Your task to perform on an android device: turn off airplane mode Image 0: 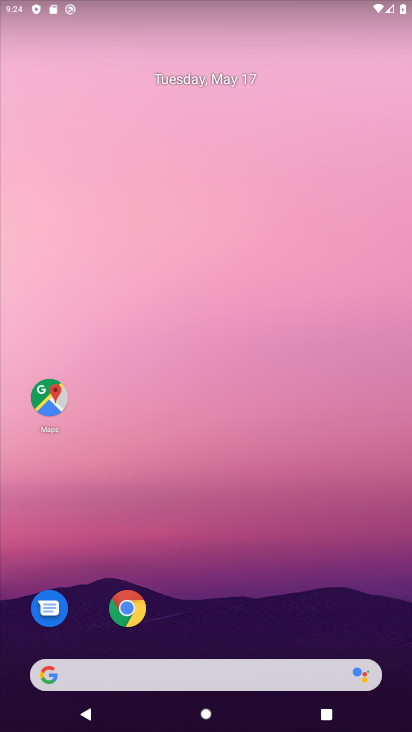
Step 0: drag from (285, 432) to (115, 22)
Your task to perform on an android device: turn off airplane mode Image 1: 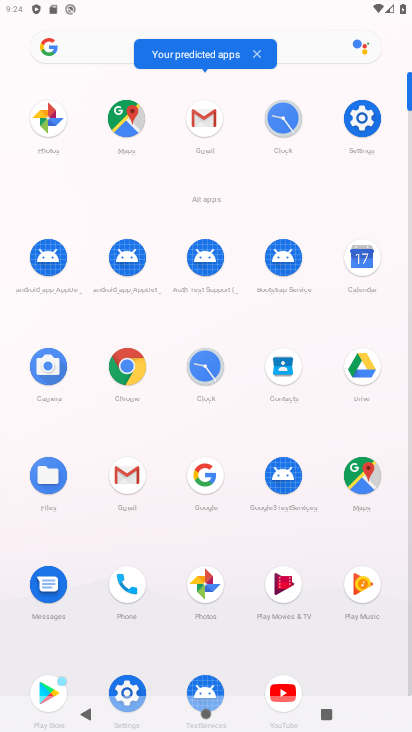
Step 1: click (369, 124)
Your task to perform on an android device: turn off airplane mode Image 2: 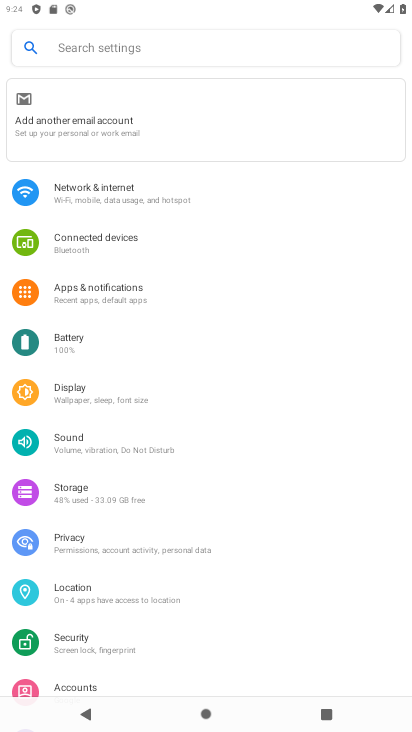
Step 2: click (83, 196)
Your task to perform on an android device: turn off airplane mode Image 3: 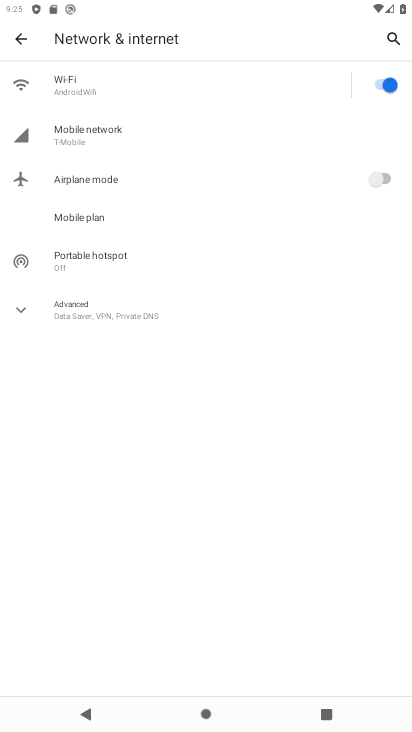
Step 3: click (32, 38)
Your task to perform on an android device: turn off airplane mode Image 4: 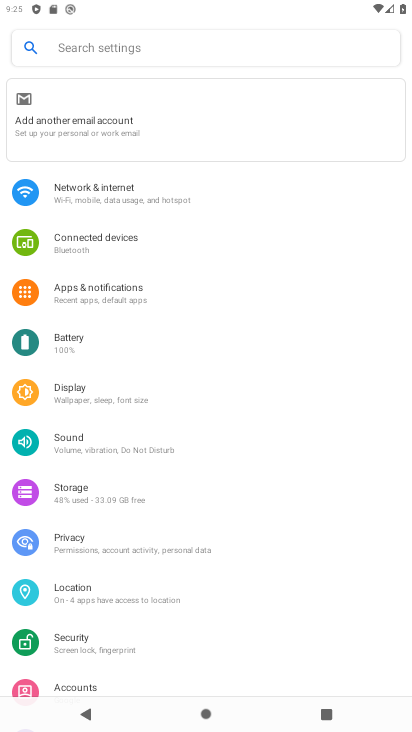
Step 4: task complete